Your task to perform on an android device: uninstall "NewsBreak: Local News & Alerts" Image 0: 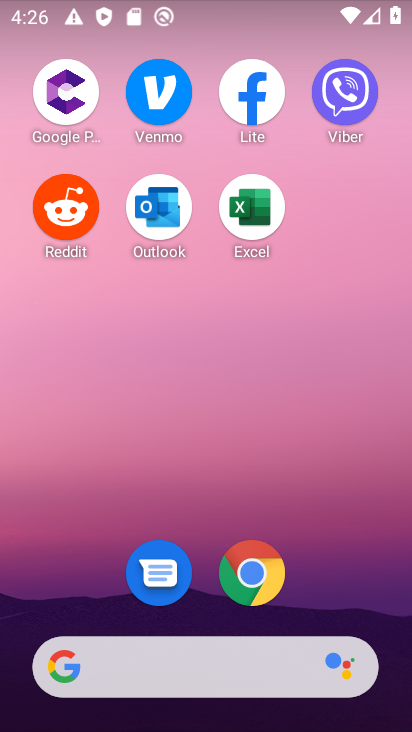
Step 0: drag from (197, 416) to (202, 95)
Your task to perform on an android device: uninstall "NewsBreak: Local News & Alerts" Image 1: 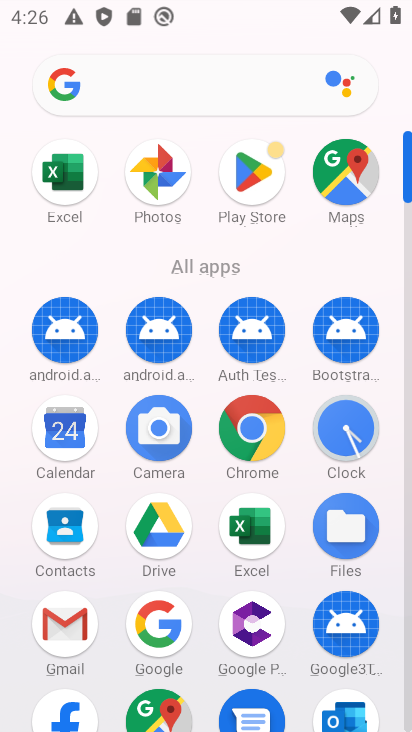
Step 1: click (240, 195)
Your task to perform on an android device: uninstall "NewsBreak: Local News & Alerts" Image 2: 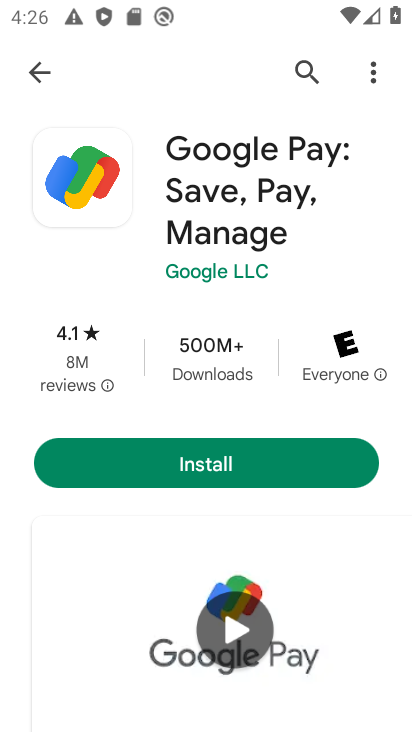
Step 2: click (293, 71)
Your task to perform on an android device: uninstall "NewsBreak: Local News & Alerts" Image 3: 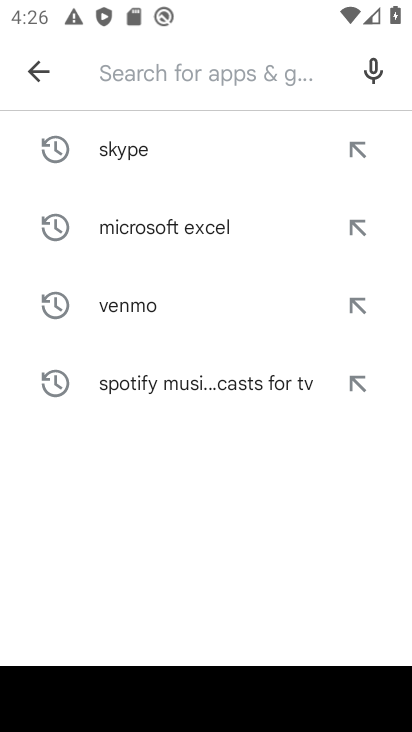
Step 3: click (294, 78)
Your task to perform on an android device: uninstall "NewsBreak: Local News & Alerts" Image 4: 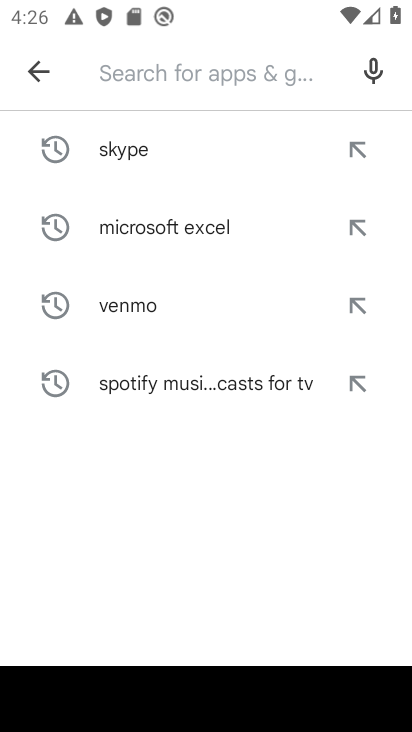
Step 4: type "NewsBreak: Local News & Alerts"
Your task to perform on an android device: uninstall "NewsBreak: Local News & Alerts" Image 5: 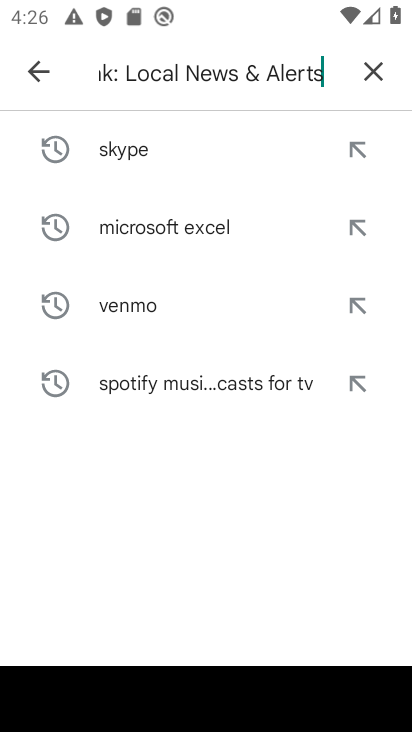
Step 5: type ""
Your task to perform on an android device: uninstall "NewsBreak: Local News & Alerts" Image 6: 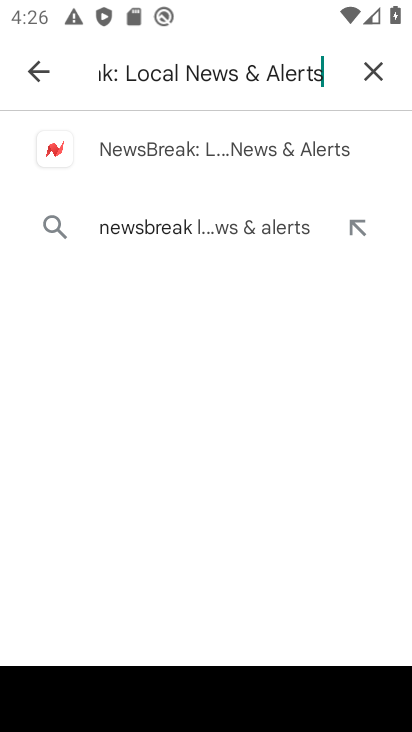
Step 6: click (157, 155)
Your task to perform on an android device: uninstall "NewsBreak: Local News & Alerts" Image 7: 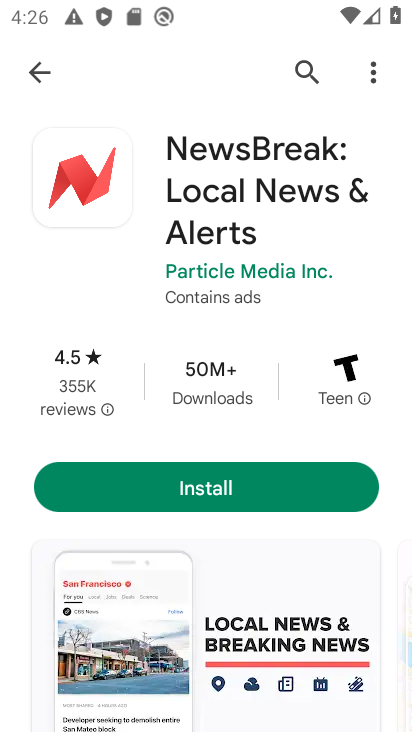
Step 7: task complete